Your task to perform on an android device: turn off javascript in the chrome app Image 0: 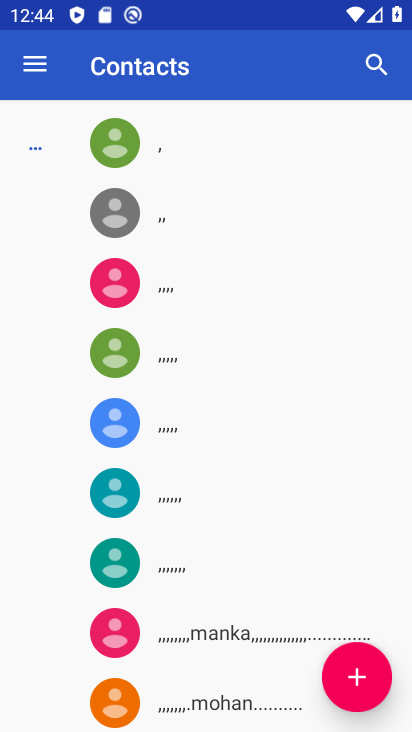
Step 0: press home button
Your task to perform on an android device: turn off javascript in the chrome app Image 1: 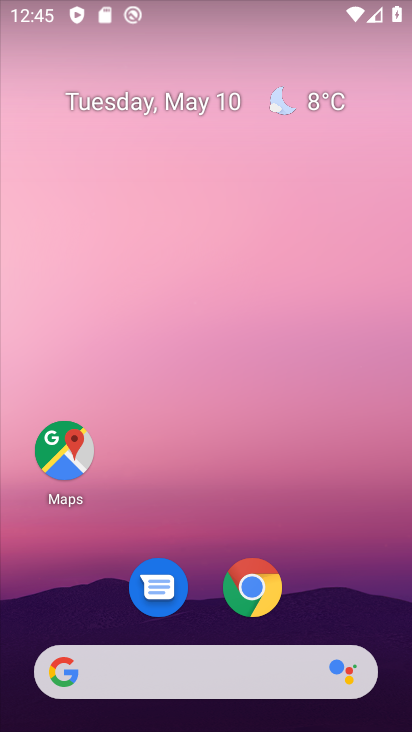
Step 1: click (239, 581)
Your task to perform on an android device: turn off javascript in the chrome app Image 2: 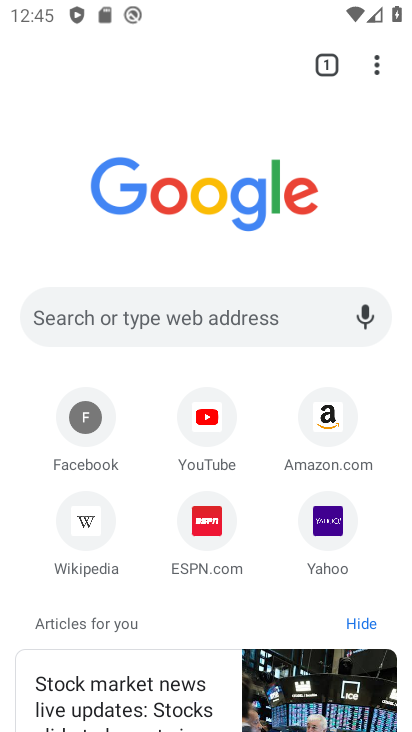
Step 2: click (375, 77)
Your task to perform on an android device: turn off javascript in the chrome app Image 3: 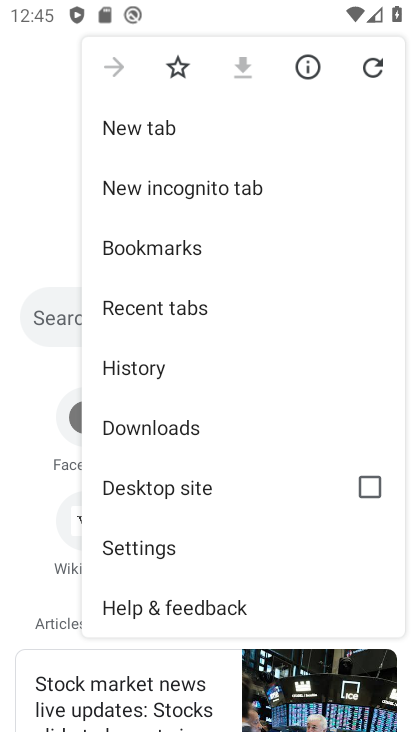
Step 3: click (167, 540)
Your task to perform on an android device: turn off javascript in the chrome app Image 4: 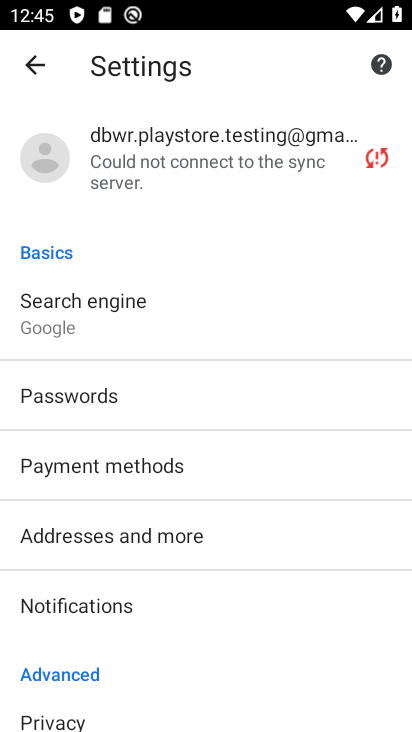
Step 4: drag from (172, 547) to (155, 247)
Your task to perform on an android device: turn off javascript in the chrome app Image 5: 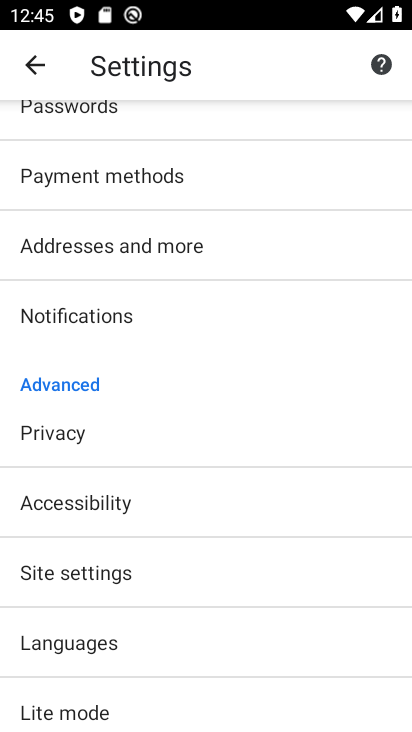
Step 5: click (130, 558)
Your task to perform on an android device: turn off javascript in the chrome app Image 6: 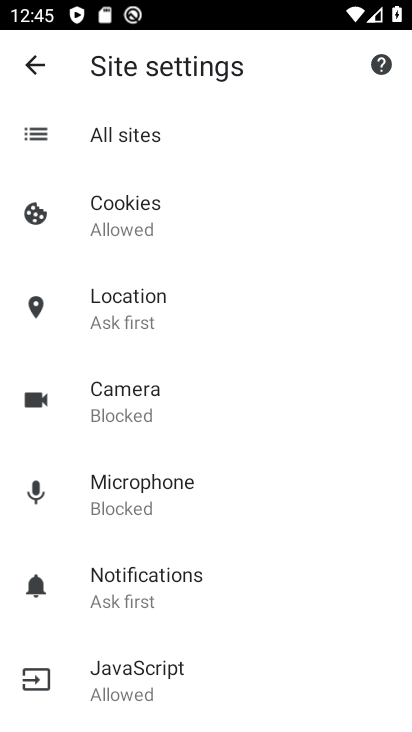
Step 6: click (134, 668)
Your task to perform on an android device: turn off javascript in the chrome app Image 7: 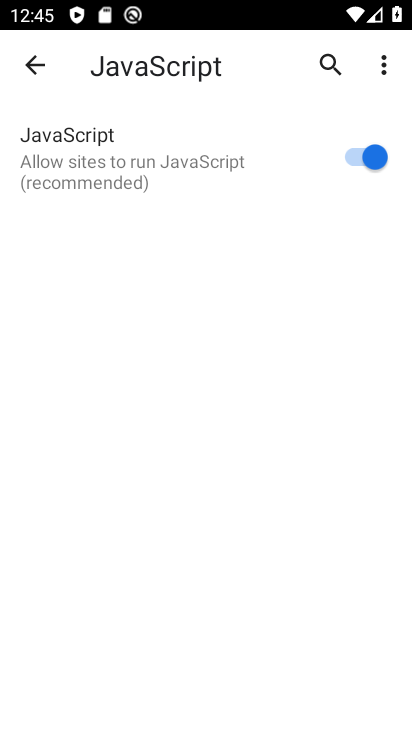
Step 7: click (368, 152)
Your task to perform on an android device: turn off javascript in the chrome app Image 8: 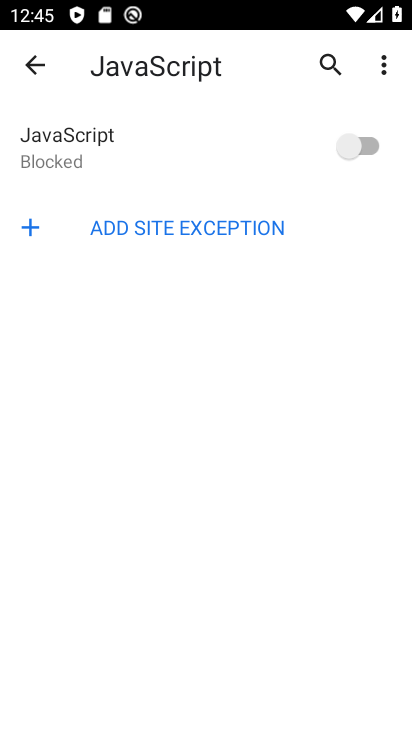
Step 8: task complete